Your task to perform on an android device: clear all cookies in the chrome app Image 0: 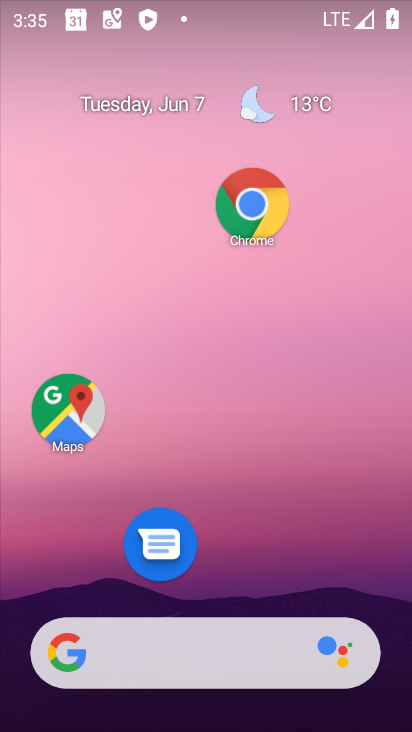
Step 0: click (247, 199)
Your task to perform on an android device: clear all cookies in the chrome app Image 1: 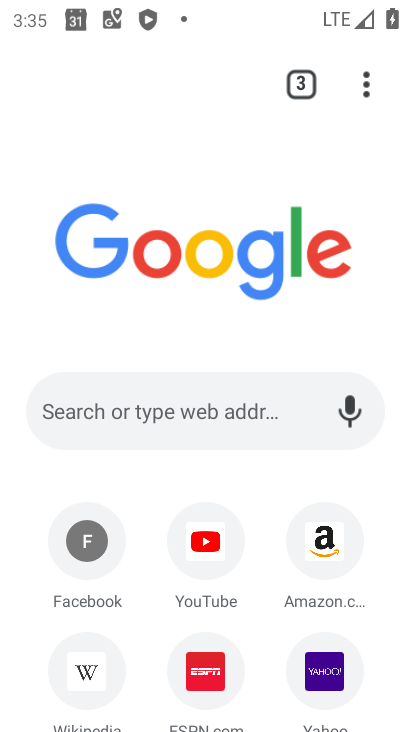
Step 1: click (367, 82)
Your task to perform on an android device: clear all cookies in the chrome app Image 2: 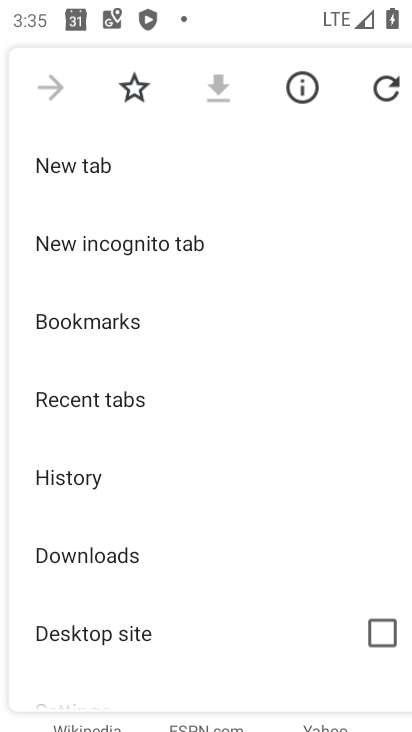
Step 2: click (121, 473)
Your task to perform on an android device: clear all cookies in the chrome app Image 3: 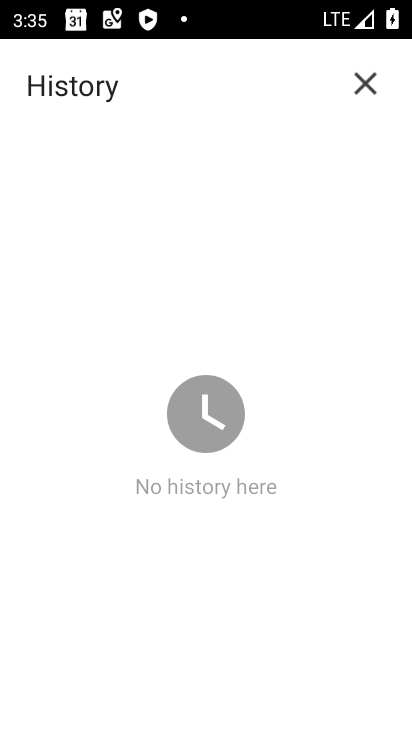
Step 3: task complete